Your task to perform on an android device: change the clock display to analog Image 0: 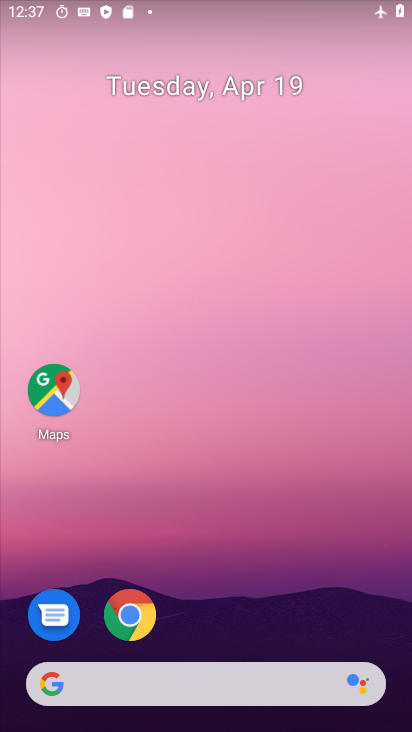
Step 0: drag from (297, 569) to (307, 94)
Your task to perform on an android device: change the clock display to analog Image 1: 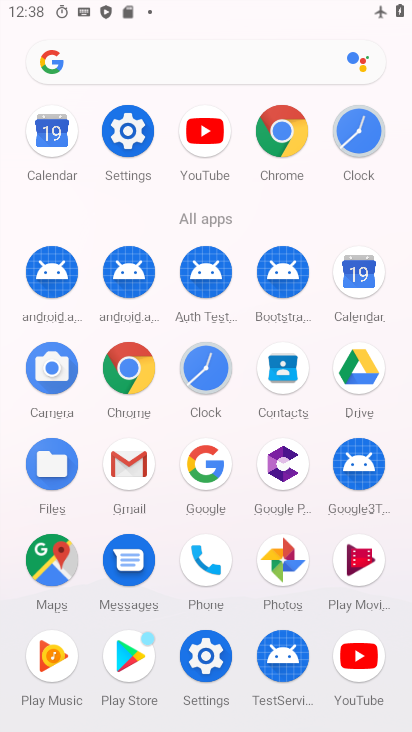
Step 1: click (220, 372)
Your task to perform on an android device: change the clock display to analog Image 2: 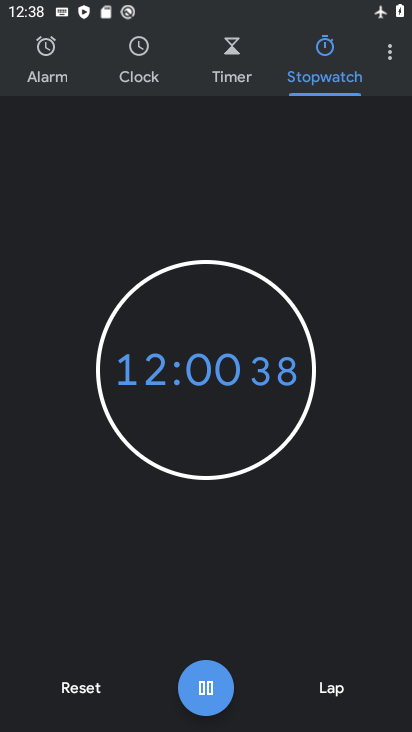
Step 2: click (392, 51)
Your task to perform on an android device: change the clock display to analog Image 3: 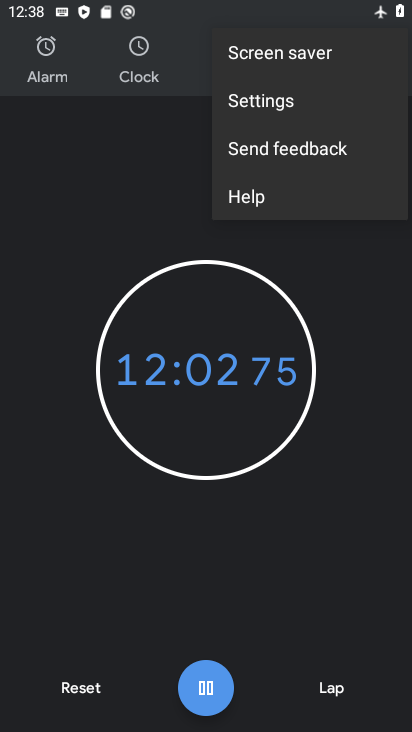
Step 3: click (277, 105)
Your task to perform on an android device: change the clock display to analog Image 4: 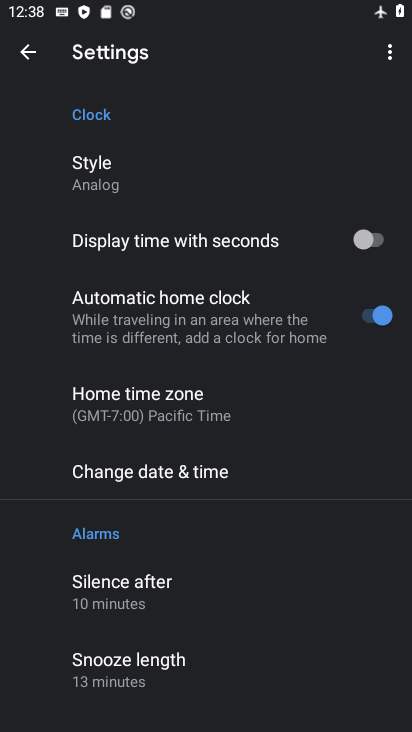
Step 4: task complete